Your task to perform on an android device: turn off improve location accuracy Image 0: 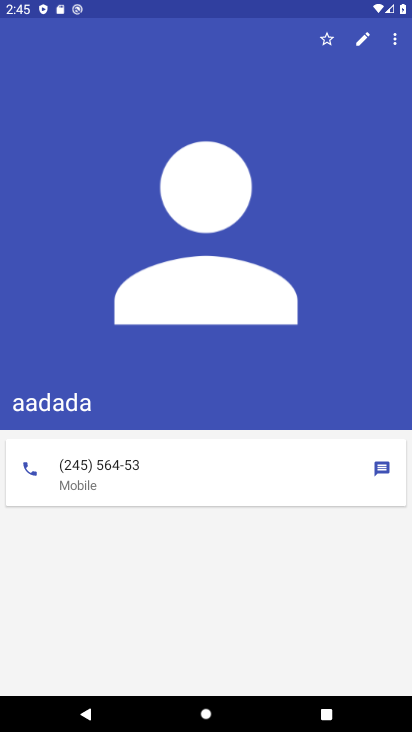
Step 0: press home button
Your task to perform on an android device: turn off improve location accuracy Image 1: 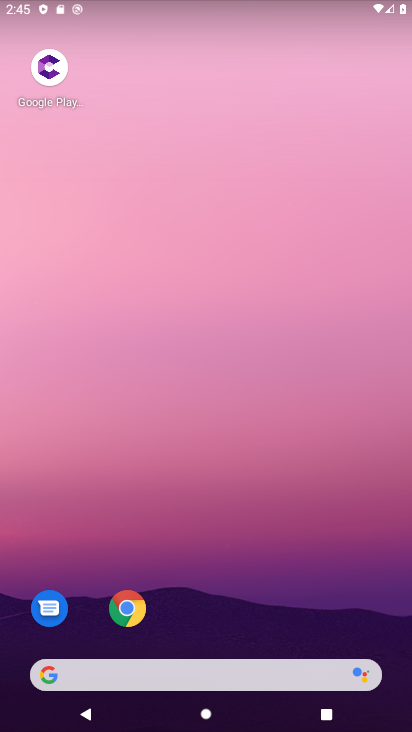
Step 1: drag from (222, 585) to (239, 191)
Your task to perform on an android device: turn off improve location accuracy Image 2: 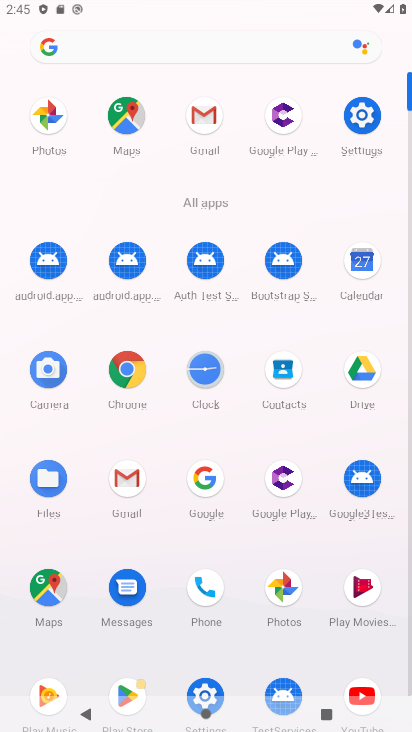
Step 2: drag from (360, 121) to (46, 180)
Your task to perform on an android device: turn off improve location accuracy Image 3: 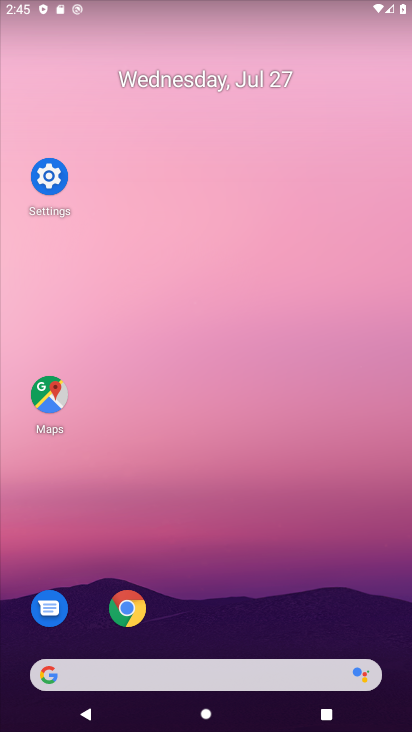
Step 3: click (50, 182)
Your task to perform on an android device: turn off improve location accuracy Image 4: 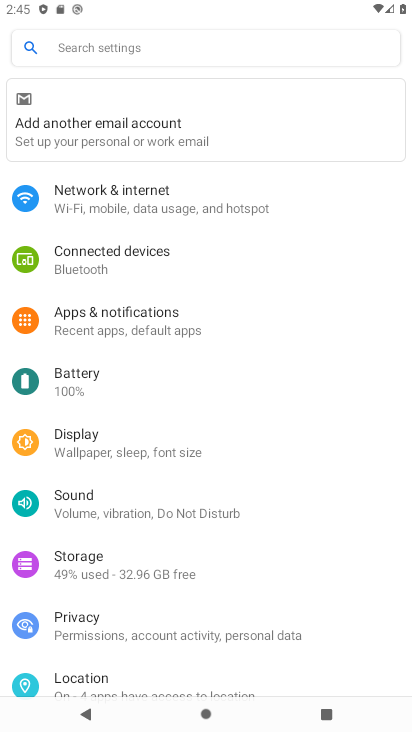
Step 4: drag from (250, 570) to (215, 273)
Your task to perform on an android device: turn off improve location accuracy Image 5: 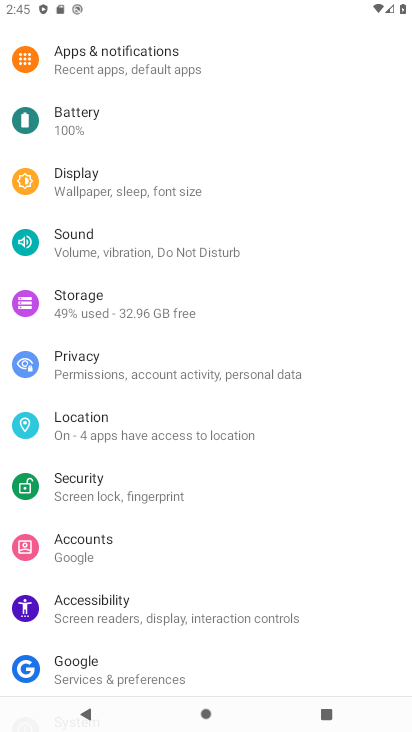
Step 5: click (202, 435)
Your task to perform on an android device: turn off improve location accuracy Image 6: 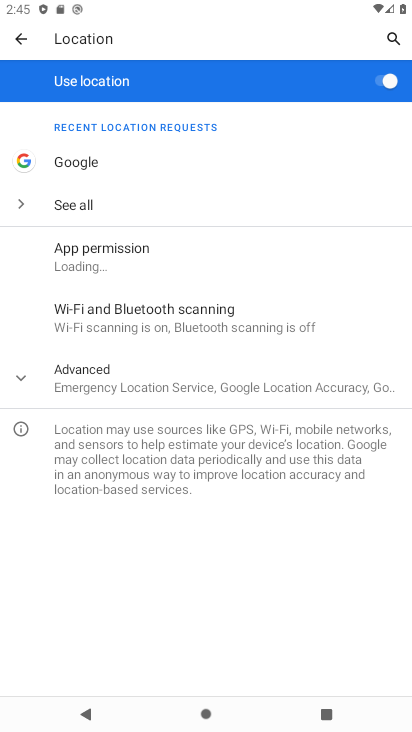
Step 6: click (223, 384)
Your task to perform on an android device: turn off improve location accuracy Image 7: 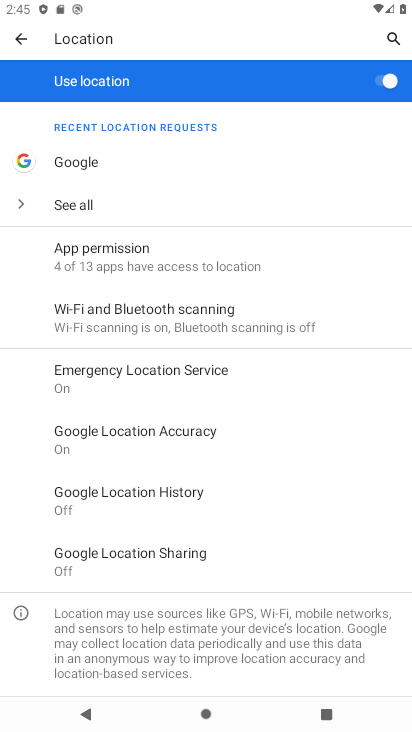
Step 7: click (237, 438)
Your task to perform on an android device: turn off improve location accuracy Image 8: 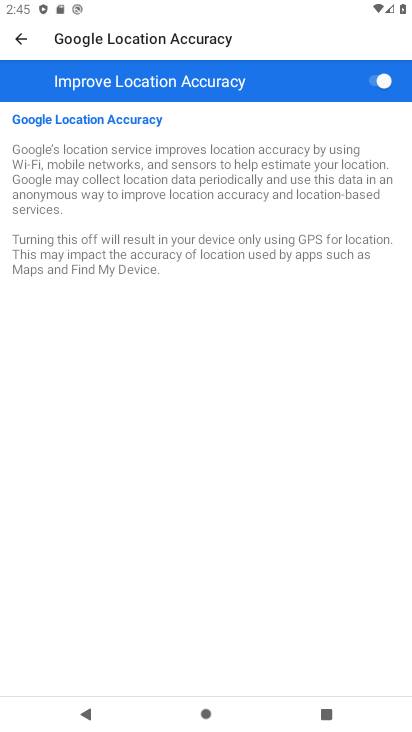
Step 8: click (376, 86)
Your task to perform on an android device: turn off improve location accuracy Image 9: 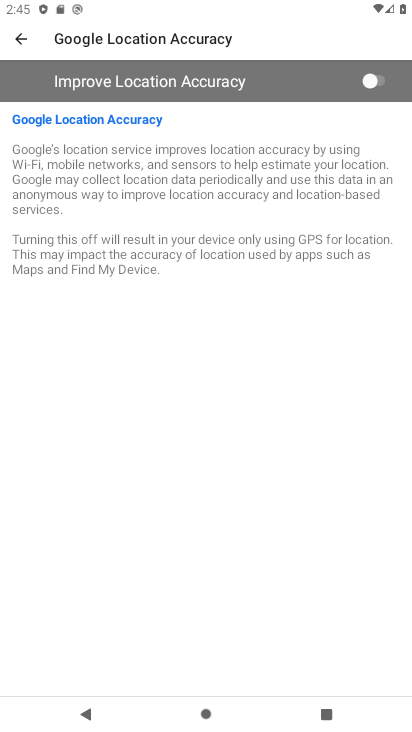
Step 9: task complete